Your task to perform on an android device: toggle notification dots Image 0: 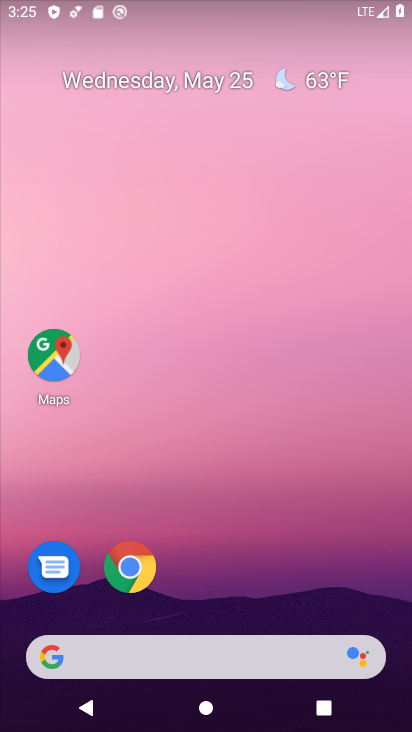
Step 0: drag from (242, 604) to (236, 60)
Your task to perform on an android device: toggle notification dots Image 1: 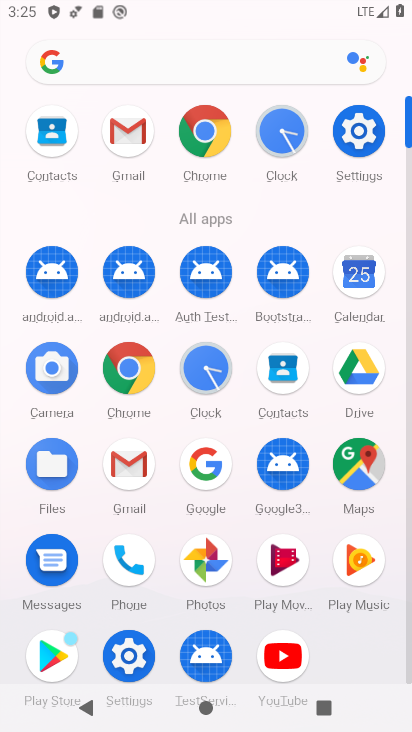
Step 1: click (353, 137)
Your task to perform on an android device: toggle notification dots Image 2: 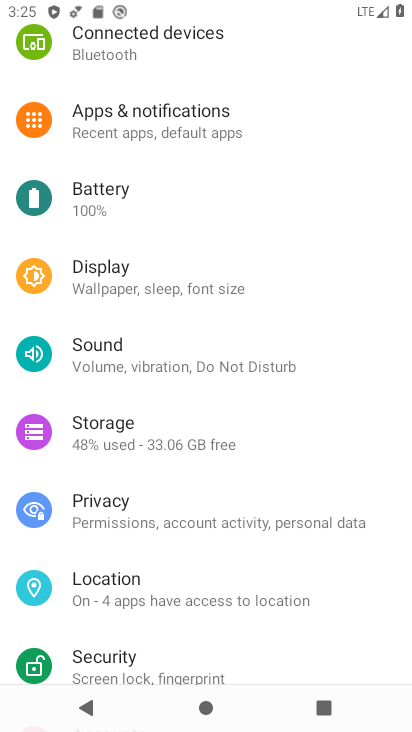
Step 2: click (159, 117)
Your task to perform on an android device: toggle notification dots Image 3: 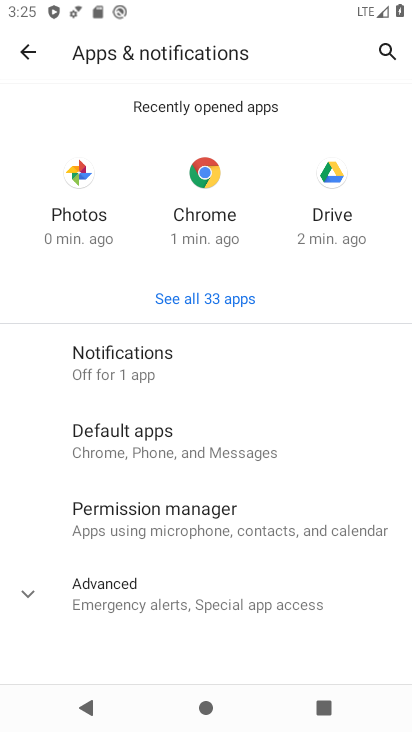
Step 3: click (139, 352)
Your task to perform on an android device: toggle notification dots Image 4: 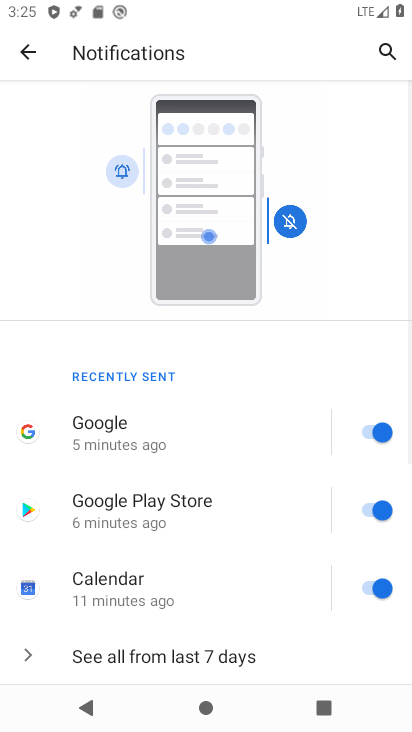
Step 4: drag from (309, 595) to (278, 179)
Your task to perform on an android device: toggle notification dots Image 5: 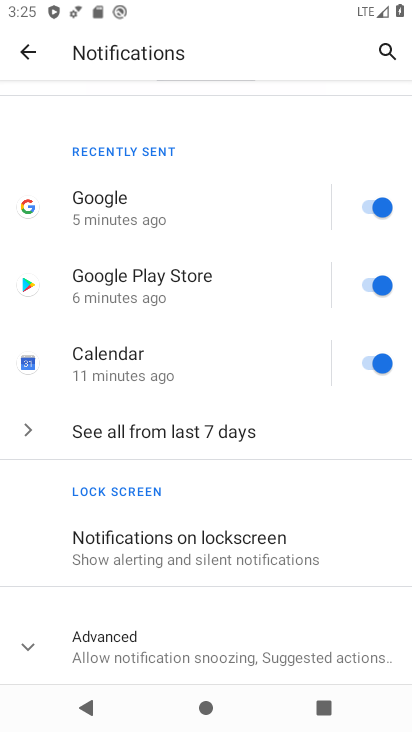
Step 5: click (214, 648)
Your task to perform on an android device: toggle notification dots Image 6: 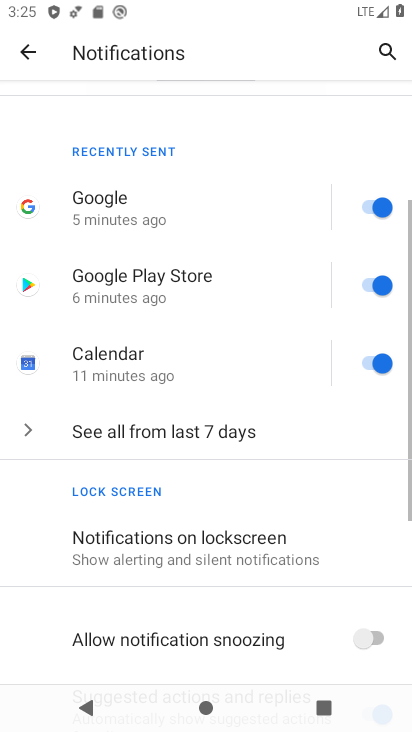
Step 6: drag from (246, 588) to (226, 138)
Your task to perform on an android device: toggle notification dots Image 7: 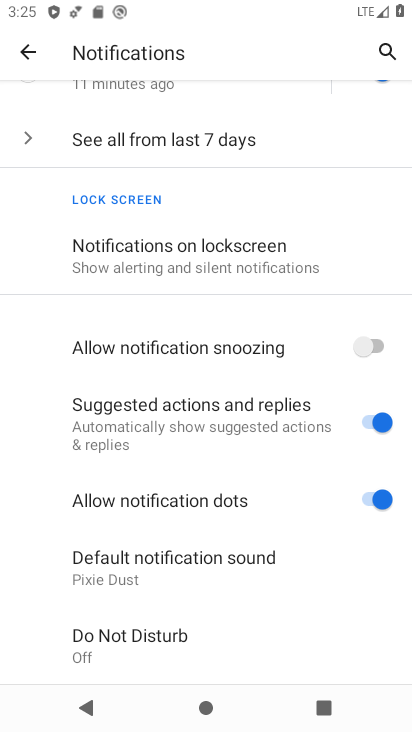
Step 7: click (365, 496)
Your task to perform on an android device: toggle notification dots Image 8: 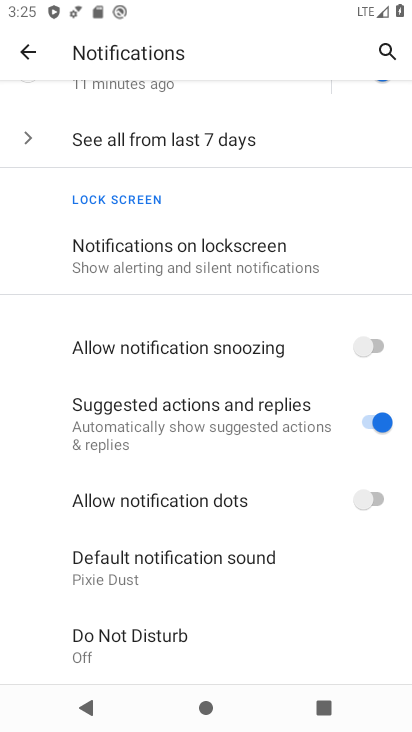
Step 8: task complete